Your task to perform on an android device: move an email to a new category in the gmail app Image 0: 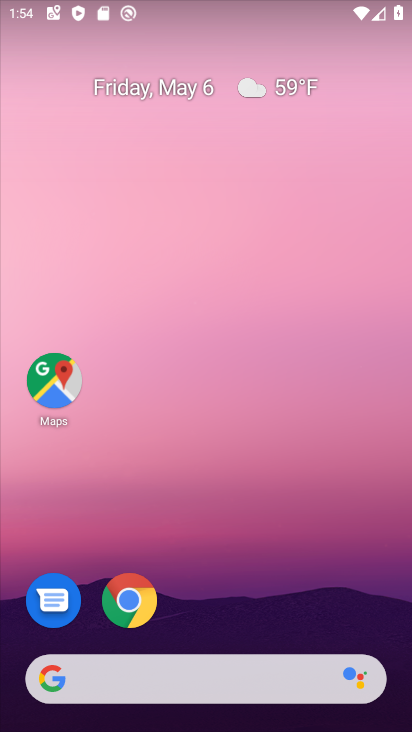
Step 0: drag from (218, 615) to (260, 89)
Your task to perform on an android device: move an email to a new category in the gmail app Image 1: 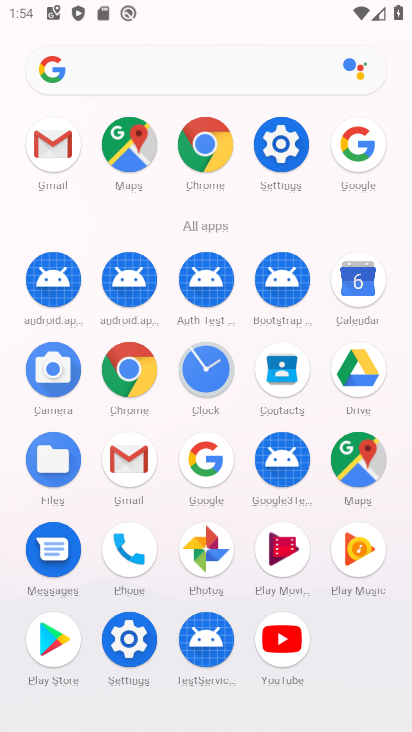
Step 1: click (53, 156)
Your task to perform on an android device: move an email to a new category in the gmail app Image 2: 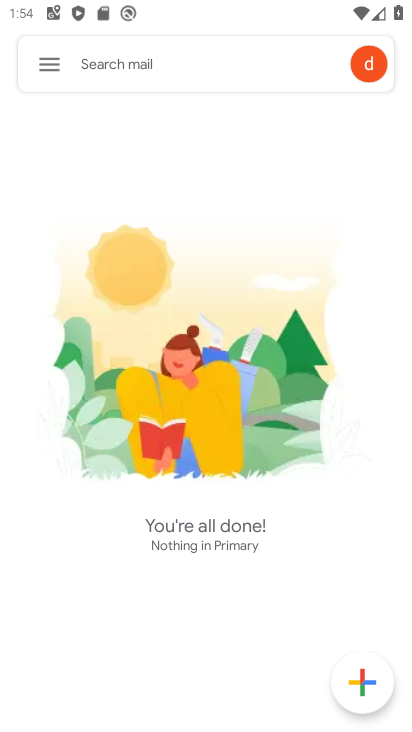
Step 2: click (47, 63)
Your task to perform on an android device: move an email to a new category in the gmail app Image 3: 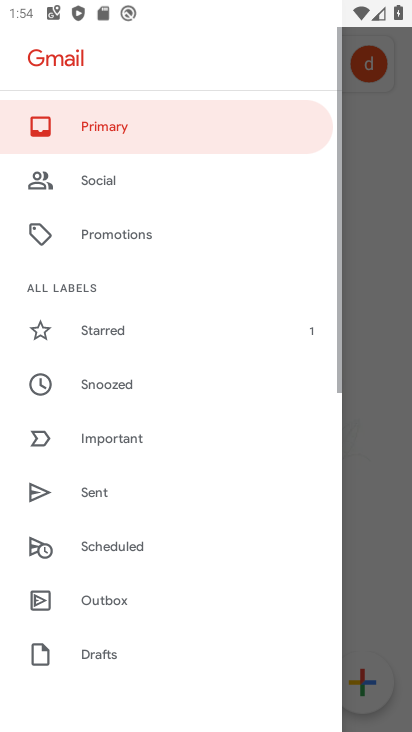
Step 3: drag from (178, 492) to (173, 195)
Your task to perform on an android device: move an email to a new category in the gmail app Image 4: 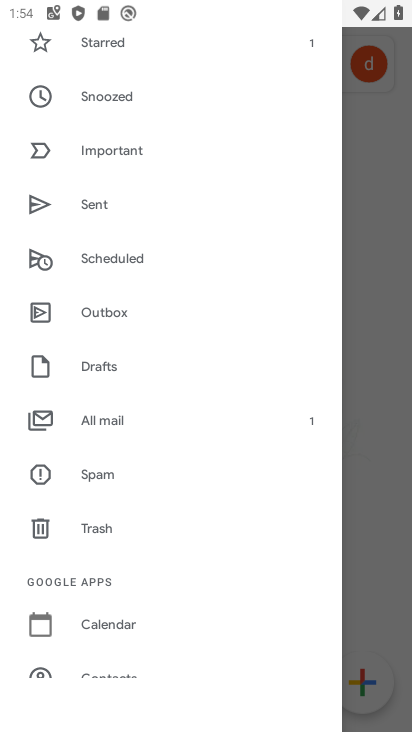
Step 4: click (147, 411)
Your task to perform on an android device: move an email to a new category in the gmail app Image 5: 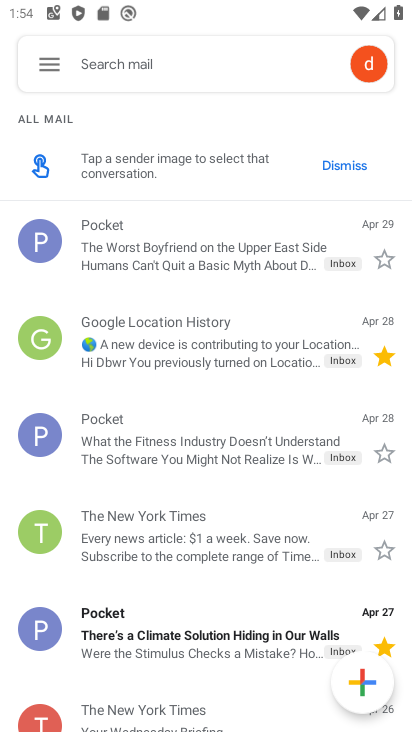
Step 5: click (201, 339)
Your task to perform on an android device: move an email to a new category in the gmail app Image 6: 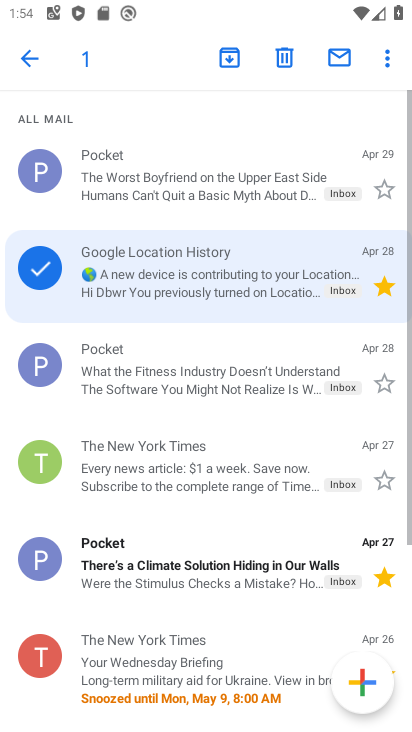
Step 6: click (388, 58)
Your task to perform on an android device: move an email to a new category in the gmail app Image 7: 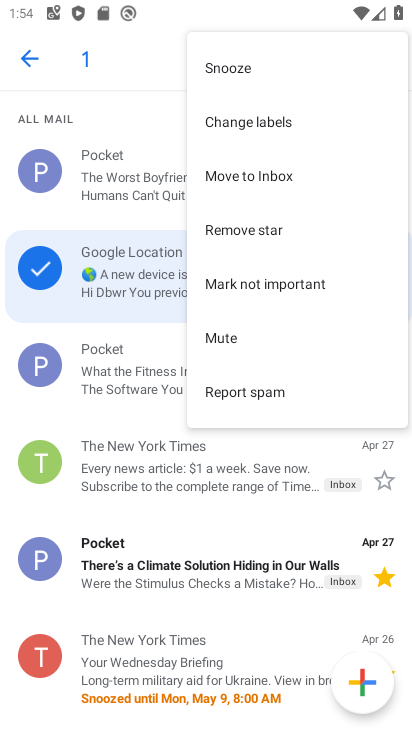
Step 7: click (255, 175)
Your task to perform on an android device: move an email to a new category in the gmail app Image 8: 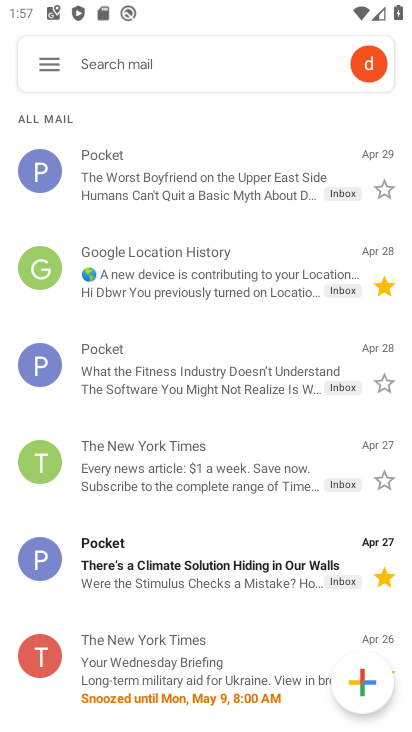
Step 8: task complete